Your task to perform on an android device: turn on notifications settings in the gmail app Image 0: 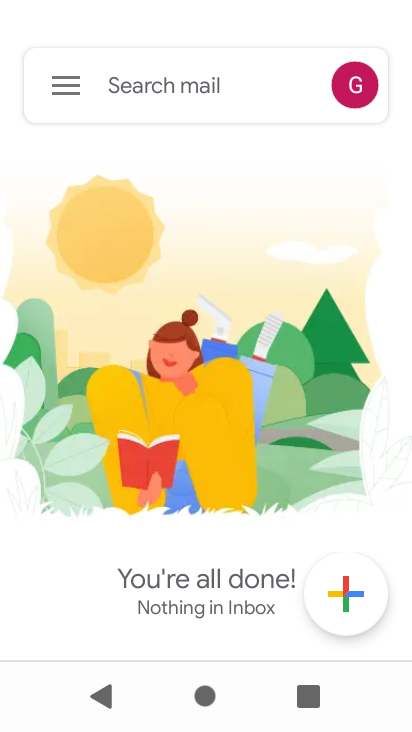
Step 0: click (79, 86)
Your task to perform on an android device: turn on notifications settings in the gmail app Image 1: 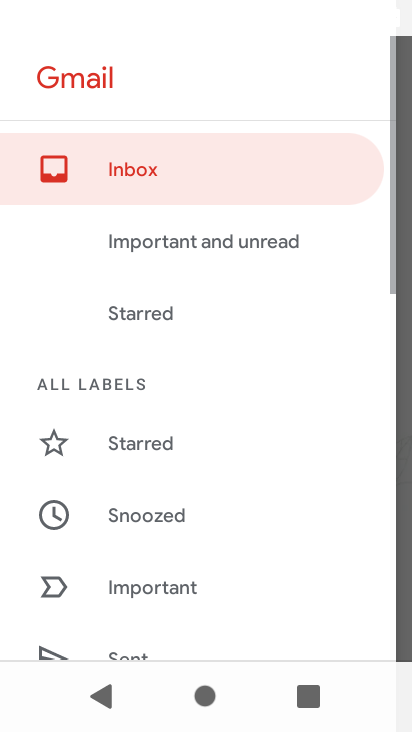
Step 1: drag from (204, 596) to (217, 219)
Your task to perform on an android device: turn on notifications settings in the gmail app Image 2: 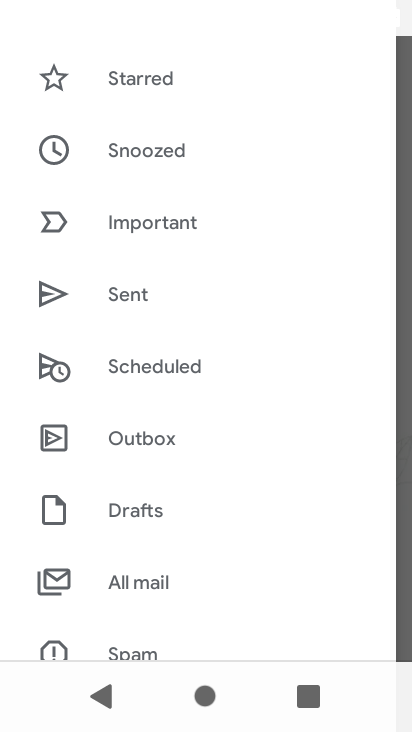
Step 2: drag from (165, 608) to (266, 59)
Your task to perform on an android device: turn on notifications settings in the gmail app Image 3: 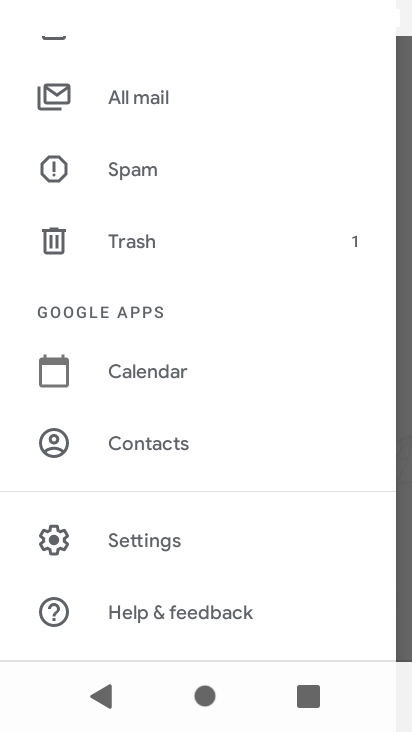
Step 3: click (180, 549)
Your task to perform on an android device: turn on notifications settings in the gmail app Image 4: 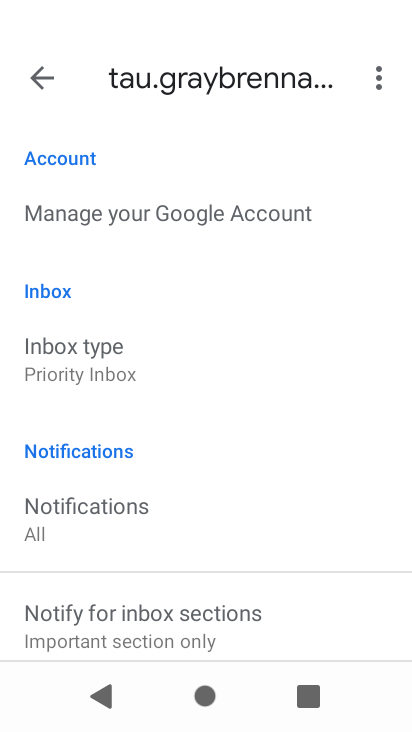
Step 4: click (189, 502)
Your task to perform on an android device: turn on notifications settings in the gmail app Image 5: 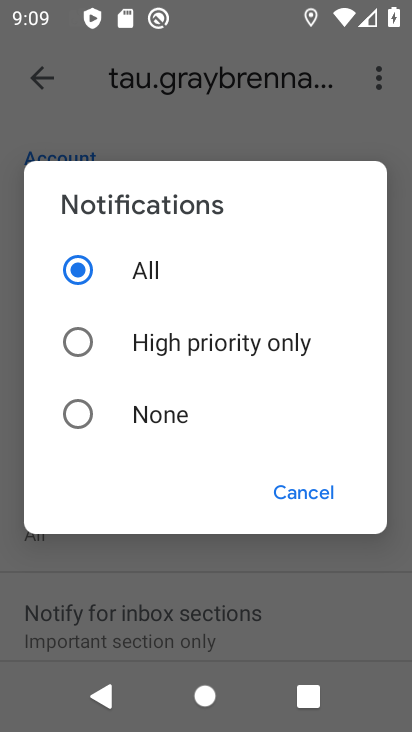
Step 5: click (346, 481)
Your task to perform on an android device: turn on notifications settings in the gmail app Image 6: 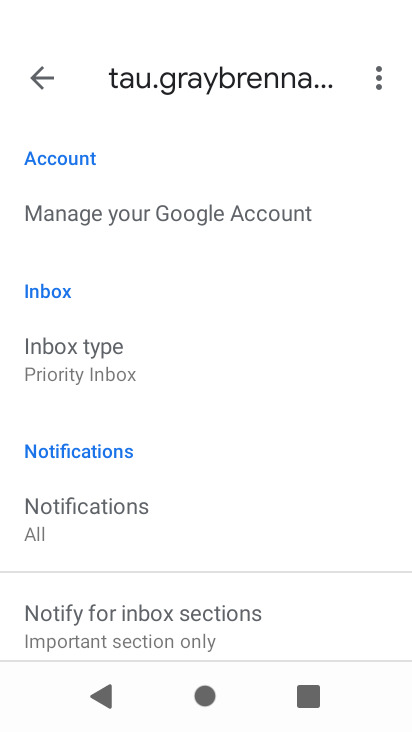
Step 6: drag from (179, 599) to (242, 210)
Your task to perform on an android device: turn on notifications settings in the gmail app Image 7: 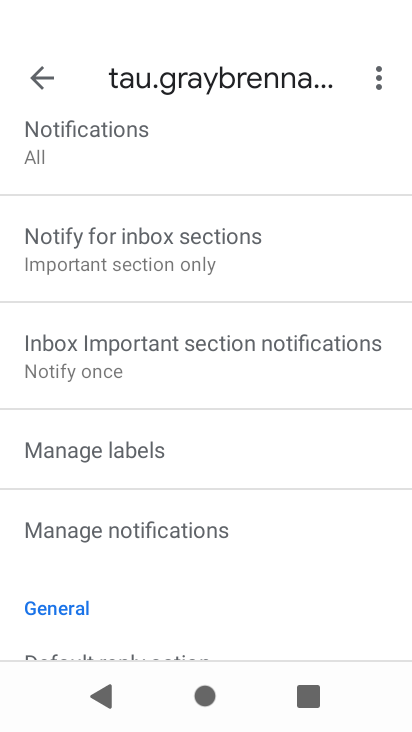
Step 7: click (102, 536)
Your task to perform on an android device: turn on notifications settings in the gmail app Image 8: 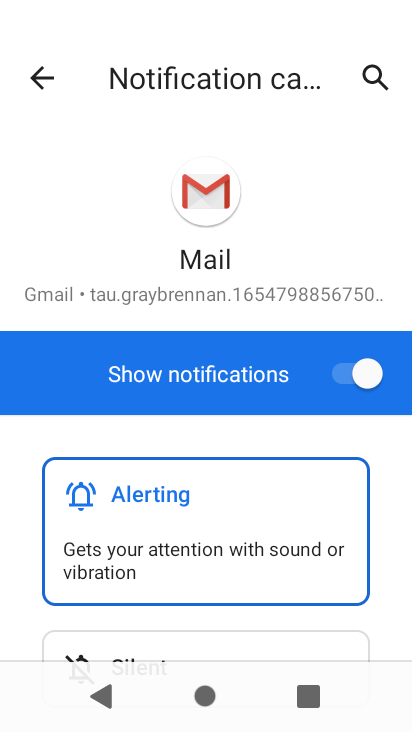
Step 8: task complete